Your task to perform on an android device: turn on airplane mode Image 0: 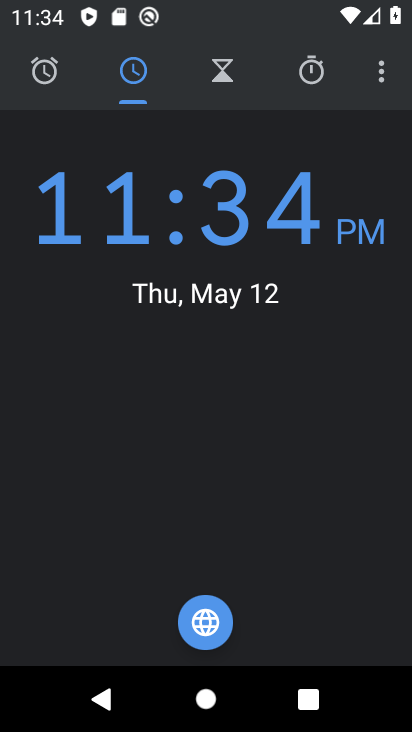
Step 0: press home button
Your task to perform on an android device: turn on airplane mode Image 1: 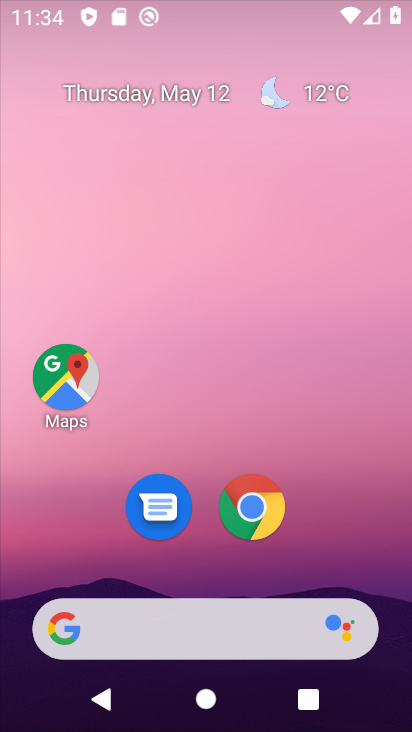
Step 1: drag from (351, 413) to (324, 117)
Your task to perform on an android device: turn on airplane mode Image 2: 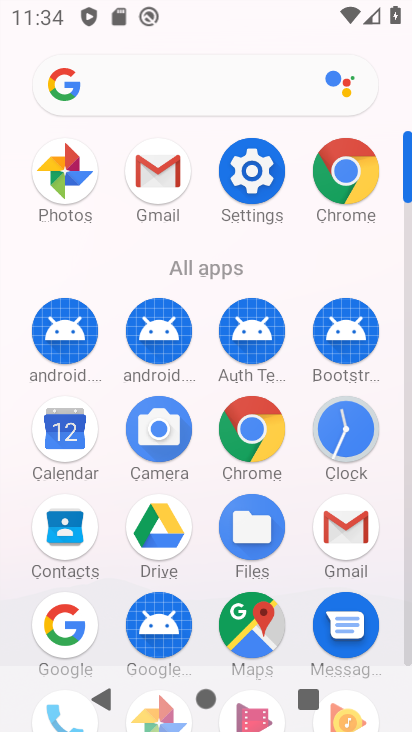
Step 2: click (244, 167)
Your task to perform on an android device: turn on airplane mode Image 3: 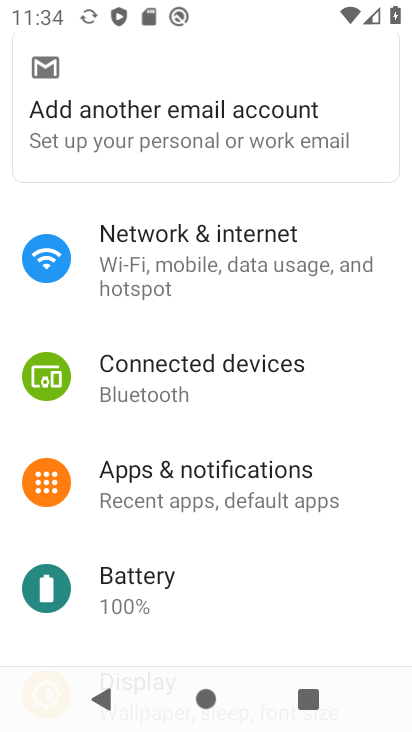
Step 3: click (208, 281)
Your task to perform on an android device: turn on airplane mode Image 4: 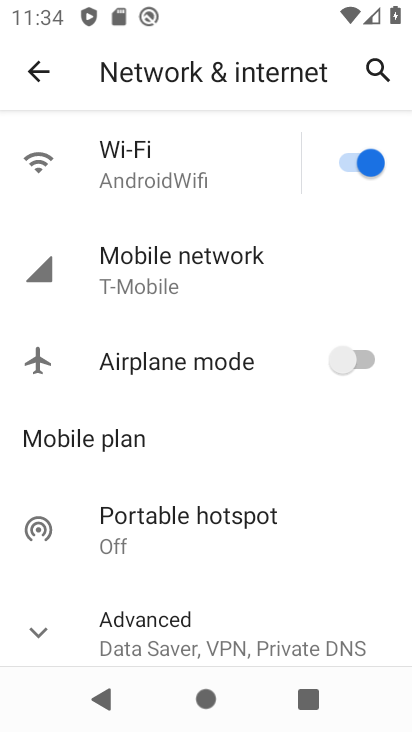
Step 4: click (339, 364)
Your task to perform on an android device: turn on airplane mode Image 5: 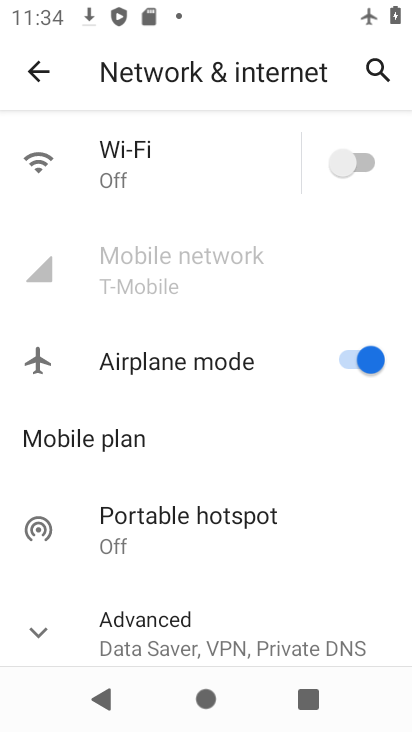
Step 5: task complete